Your task to perform on an android device: Open calendar and show me the second week of next month Image 0: 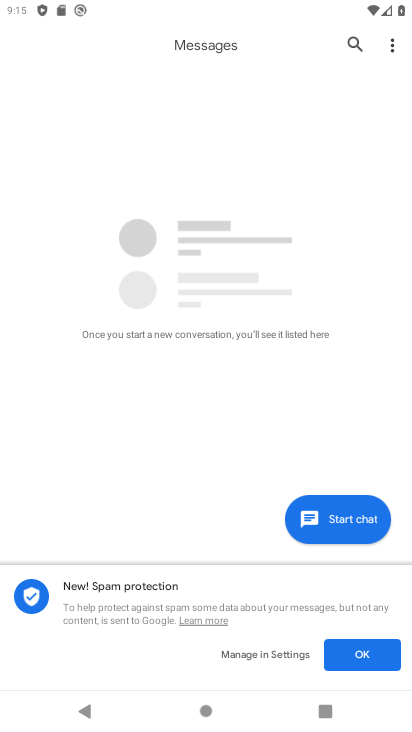
Step 0: press home button
Your task to perform on an android device: Open calendar and show me the second week of next month Image 1: 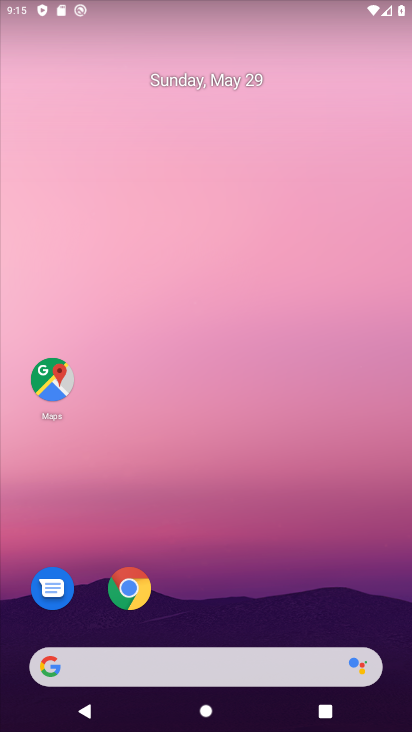
Step 1: drag from (20, 524) to (242, 156)
Your task to perform on an android device: Open calendar and show me the second week of next month Image 2: 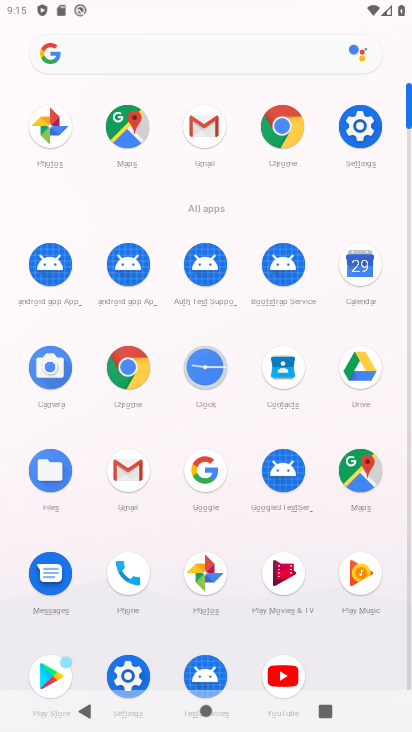
Step 2: click (345, 267)
Your task to perform on an android device: Open calendar and show me the second week of next month Image 3: 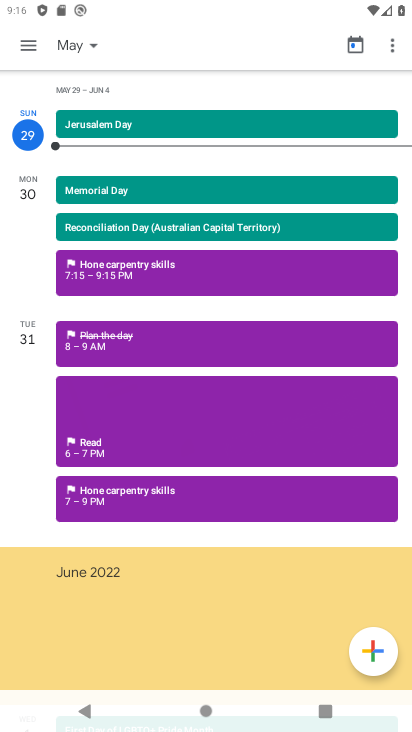
Step 3: click (50, 50)
Your task to perform on an android device: Open calendar and show me the second week of next month Image 4: 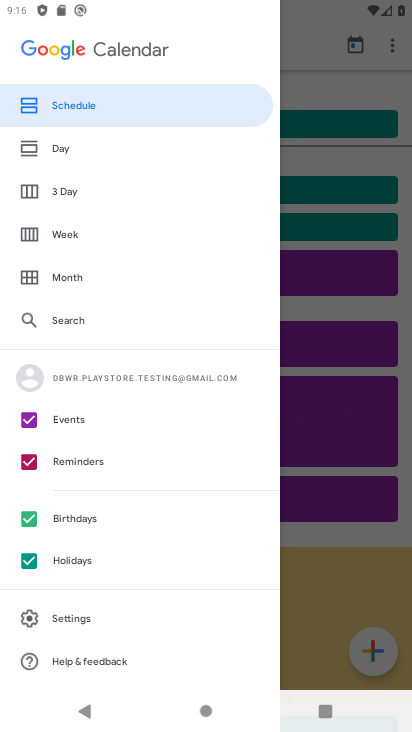
Step 4: press back button
Your task to perform on an android device: Open calendar and show me the second week of next month Image 5: 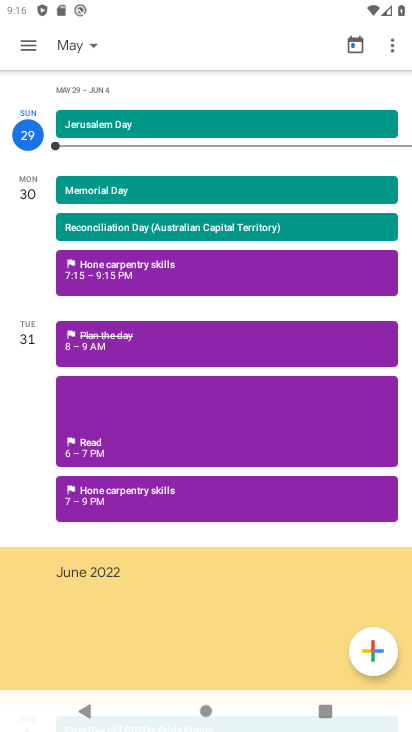
Step 5: click (73, 43)
Your task to perform on an android device: Open calendar and show me the second week of next month Image 6: 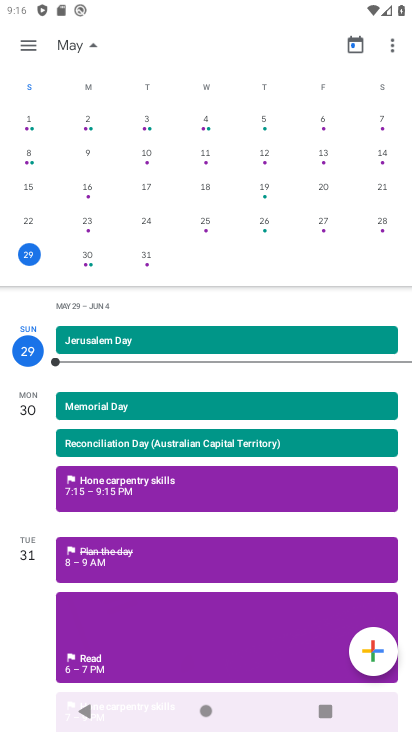
Step 6: drag from (364, 178) to (94, 7)
Your task to perform on an android device: Open calendar and show me the second week of next month Image 7: 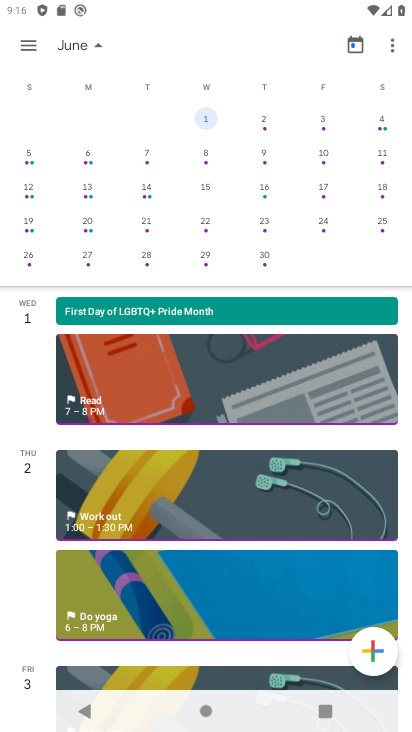
Step 7: click (204, 146)
Your task to perform on an android device: Open calendar and show me the second week of next month Image 8: 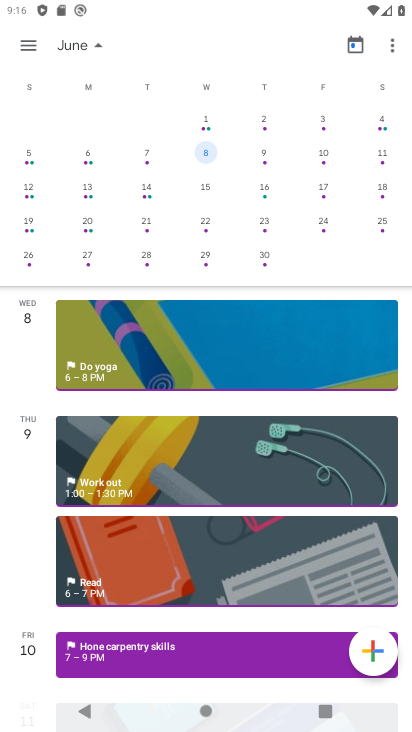
Step 8: task complete